Your task to perform on an android device: What's the weather today? Image 0: 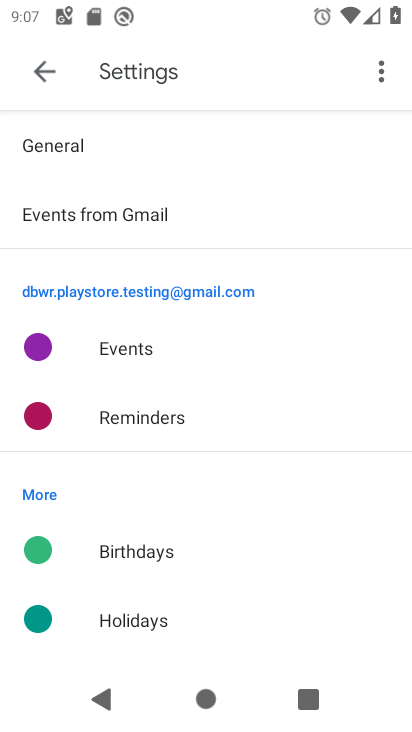
Step 0: press home button
Your task to perform on an android device: What's the weather today? Image 1: 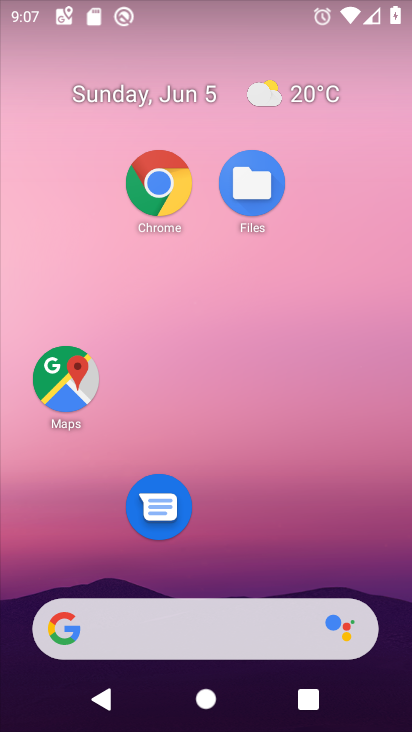
Step 1: click (217, 631)
Your task to perform on an android device: What's the weather today? Image 2: 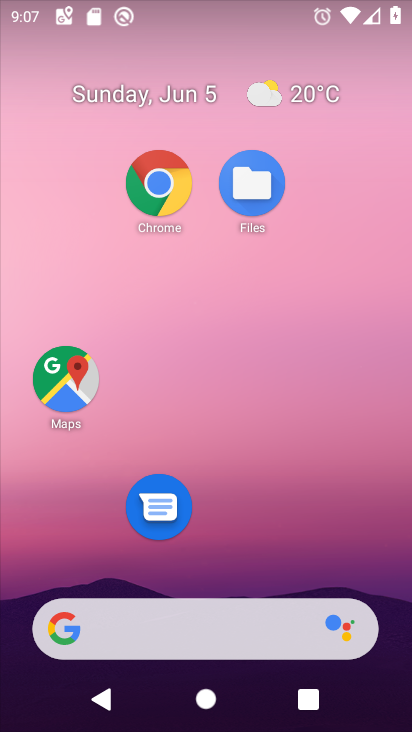
Step 2: click (217, 631)
Your task to perform on an android device: What's the weather today? Image 3: 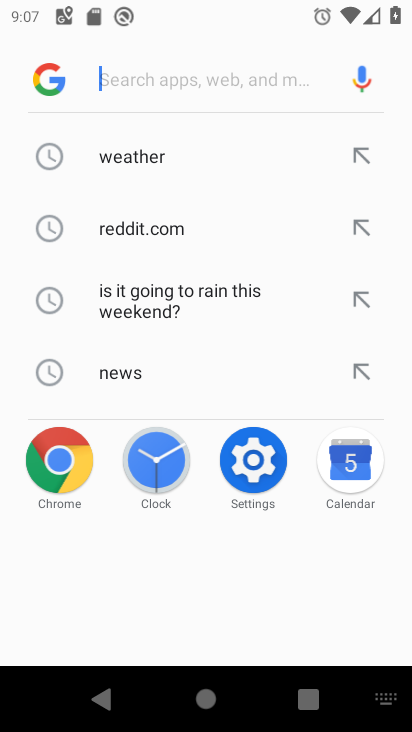
Step 3: click (133, 176)
Your task to perform on an android device: What's the weather today? Image 4: 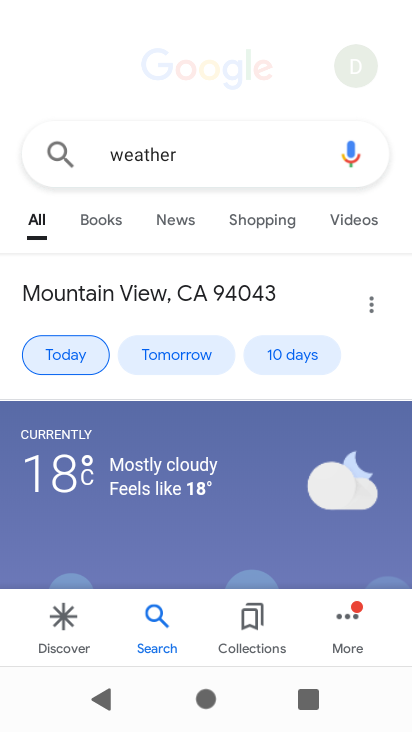
Step 4: task complete